Your task to perform on an android device: Go to Google Image 0: 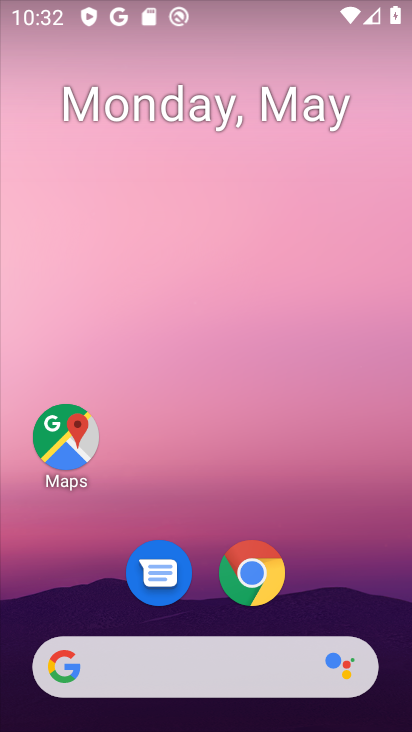
Step 0: drag from (208, 554) to (276, 35)
Your task to perform on an android device: Go to Google Image 1: 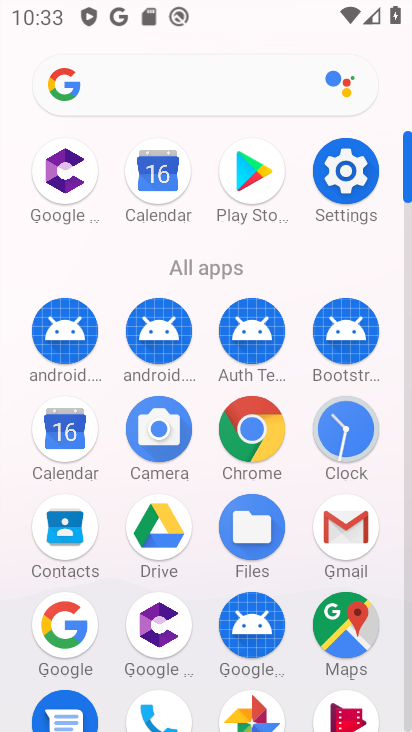
Step 1: drag from (216, 651) to (286, 210)
Your task to perform on an android device: Go to Google Image 2: 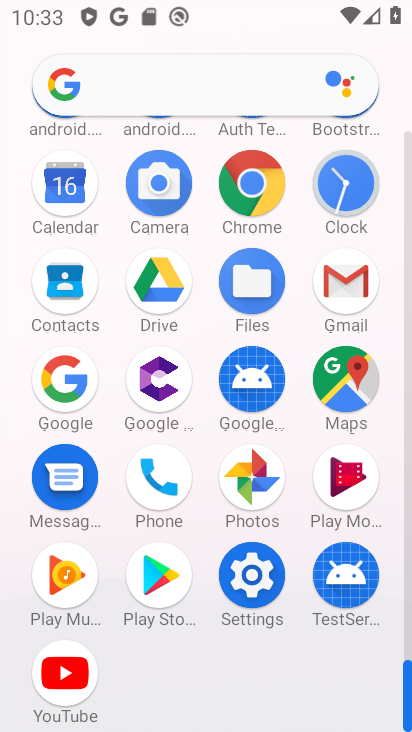
Step 2: click (58, 395)
Your task to perform on an android device: Go to Google Image 3: 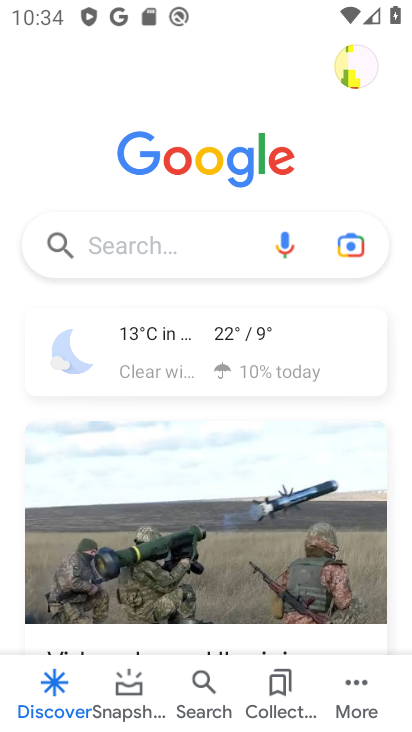
Step 3: task complete